Your task to perform on an android device: delete location history Image 0: 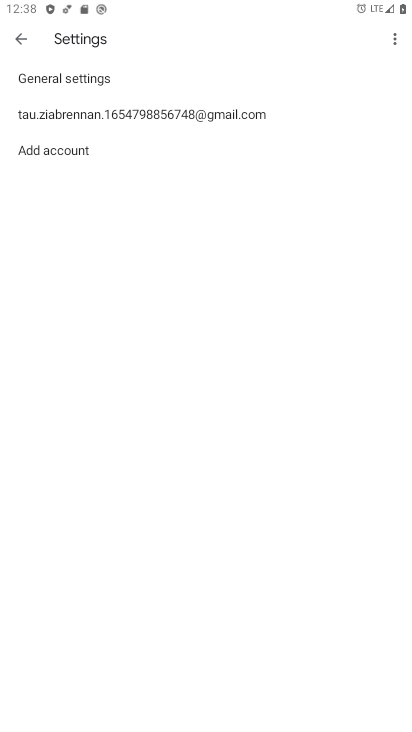
Step 0: press home button
Your task to perform on an android device: delete location history Image 1: 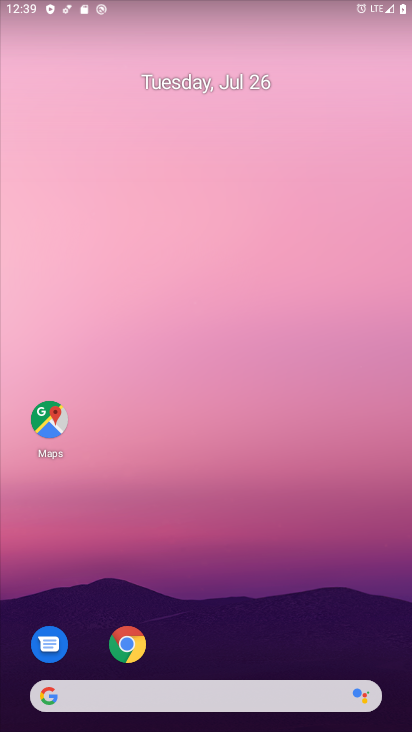
Step 1: click (44, 428)
Your task to perform on an android device: delete location history Image 2: 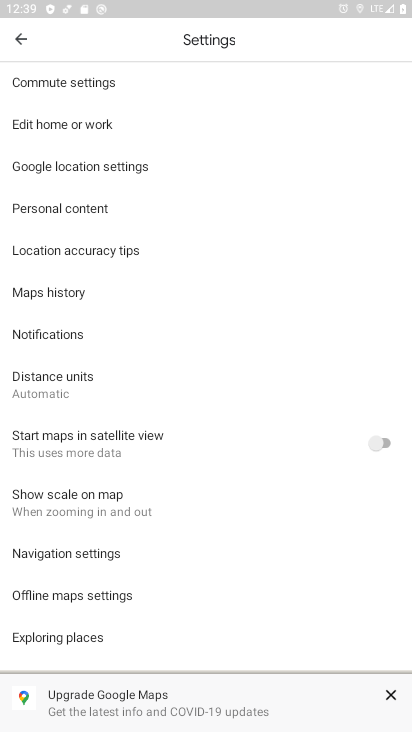
Step 2: press back button
Your task to perform on an android device: delete location history Image 3: 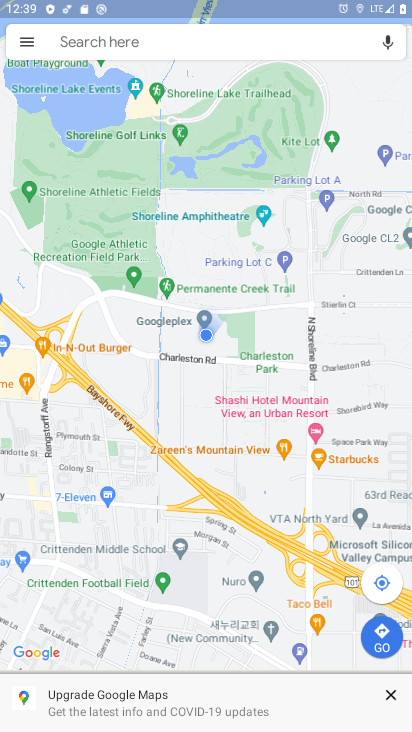
Step 3: click (26, 44)
Your task to perform on an android device: delete location history Image 4: 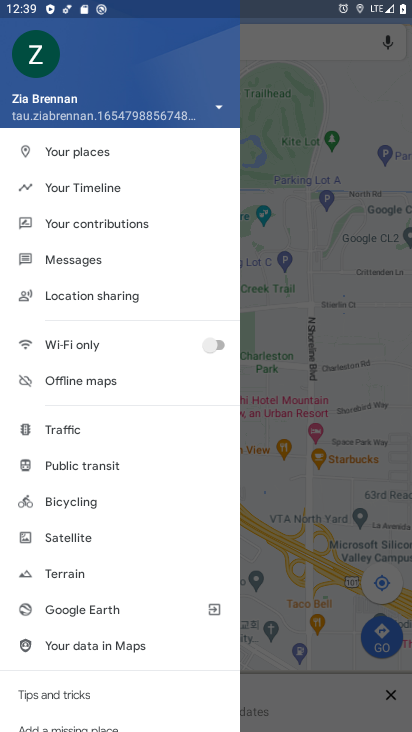
Step 4: click (75, 190)
Your task to perform on an android device: delete location history Image 5: 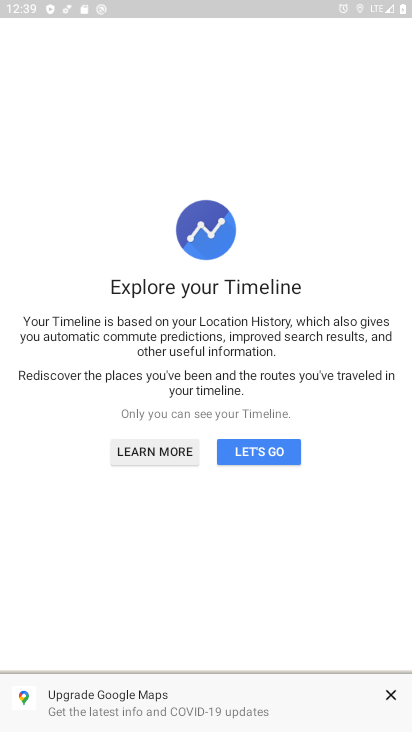
Step 5: click (243, 455)
Your task to perform on an android device: delete location history Image 6: 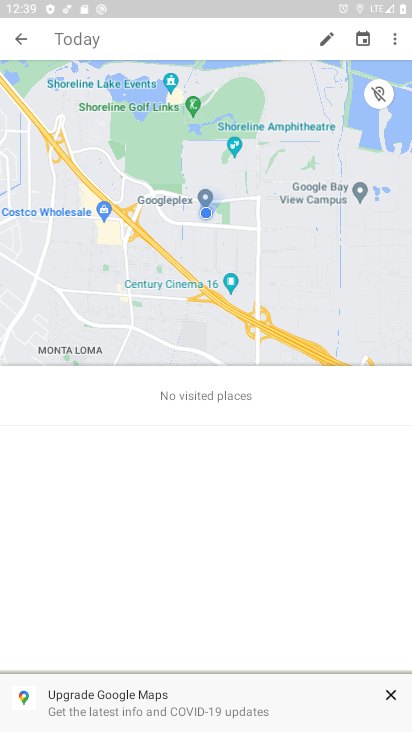
Step 6: click (398, 40)
Your task to perform on an android device: delete location history Image 7: 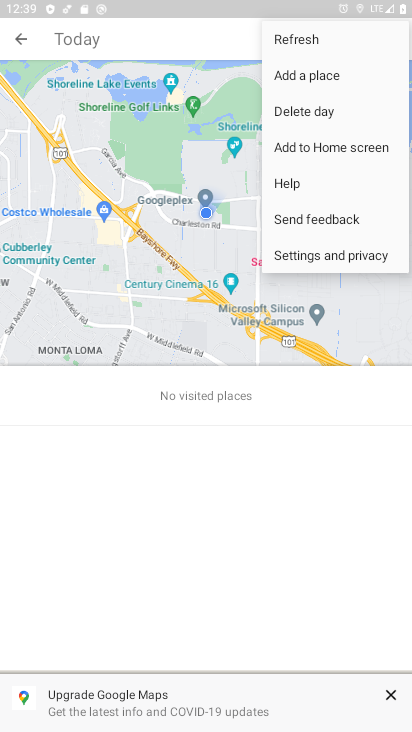
Step 7: click (331, 259)
Your task to perform on an android device: delete location history Image 8: 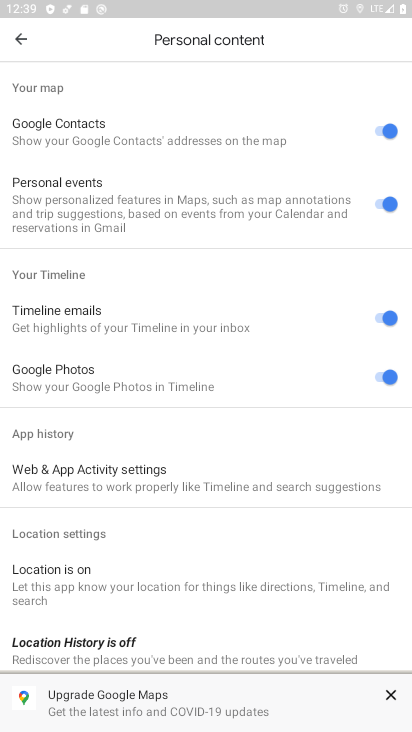
Step 8: drag from (156, 562) to (185, 15)
Your task to perform on an android device: delete location history Image 9: 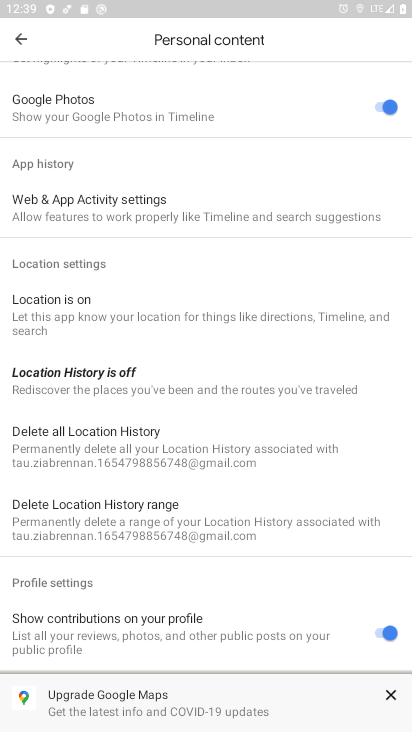
Step 9: click (174, 452)
Your task to perform on an android device: delete location history Image 10: 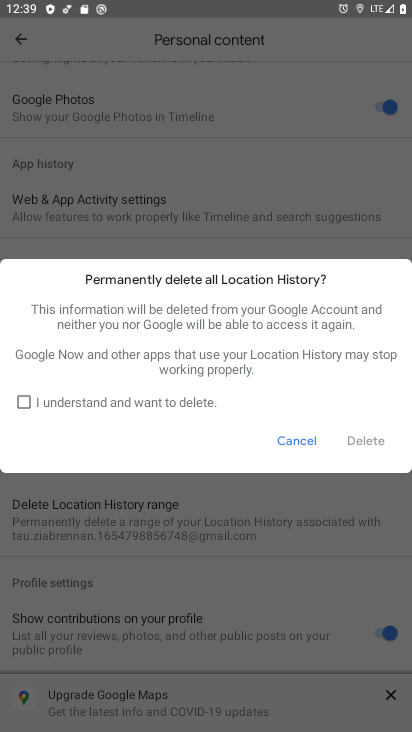
Step 10: click (64, 402)
Your task to perform on an android device: delete location history Image 11: 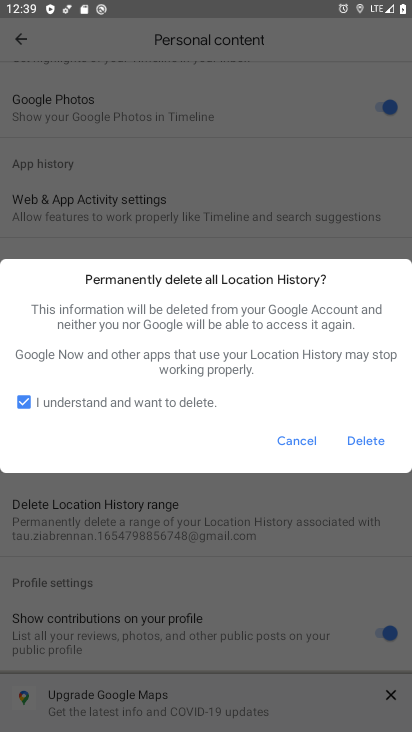
Step 11: click (371, 434)
Your task to perform on an android device: delete location history Image 12: 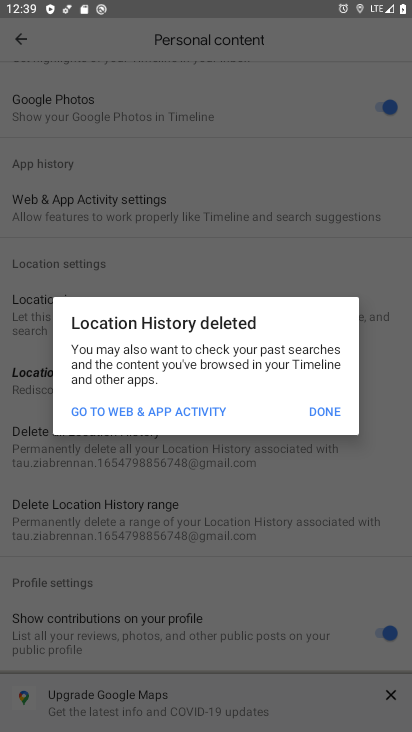
Step 12: task complete